Your task to perform on an android device: toggle airplane mode Image 0: 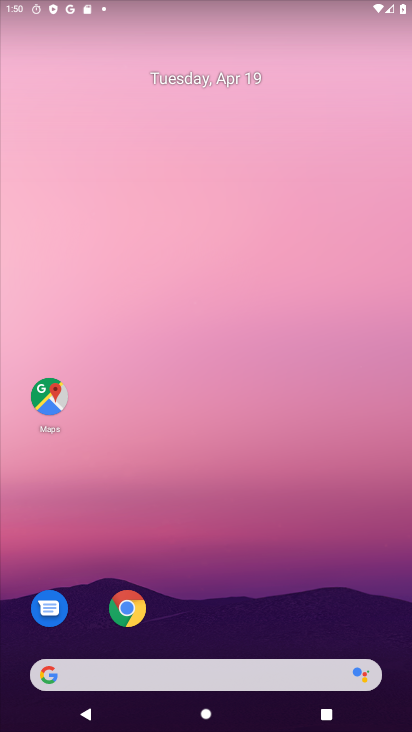
Step 0: drag from (233, 28) to (408, 227)
Your task to perform on an android device: toggle airplane mode Image 1: 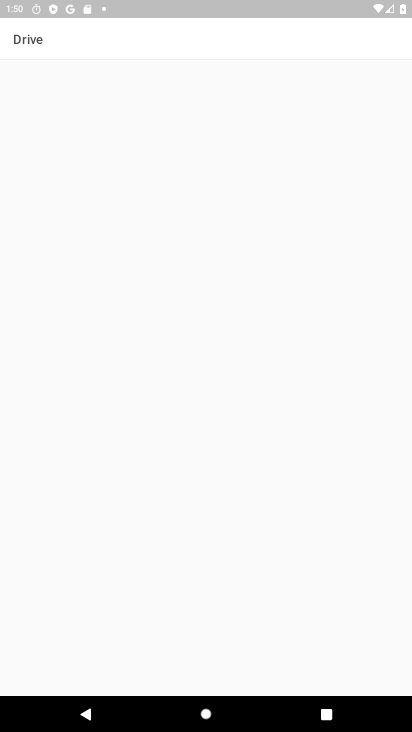
Step 1: press home button
Your task to perform on an android device: toggle airplane mode Image 2: 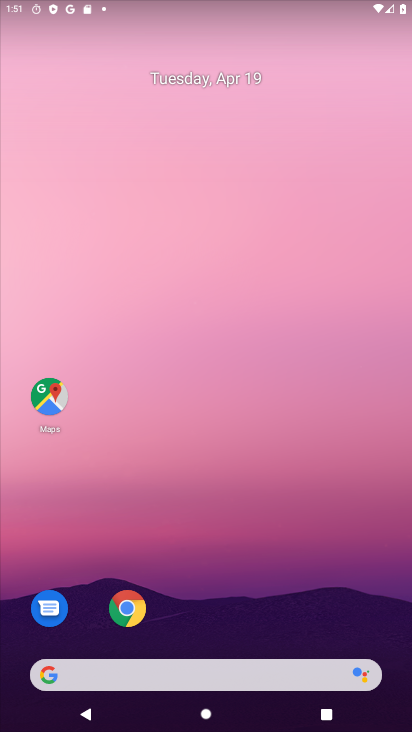
Step 2: drag from (191, 2) to (215, 697)
Your task to perform on an android device: toggle airplane mode Image 3: 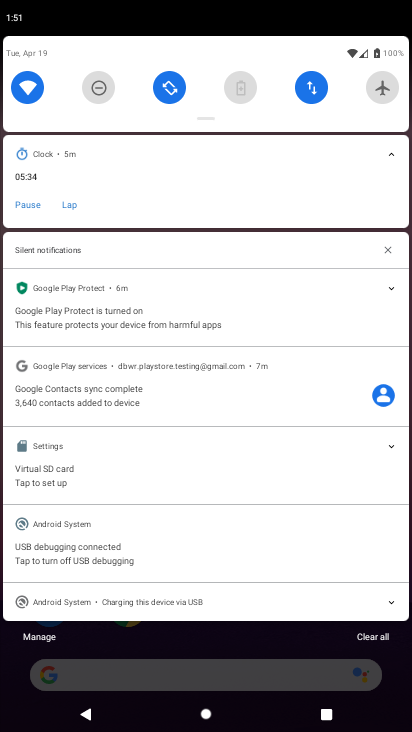
Step 3: click (380, 90)
Your task to perform on an android device: toggle airplane mode Image 4: 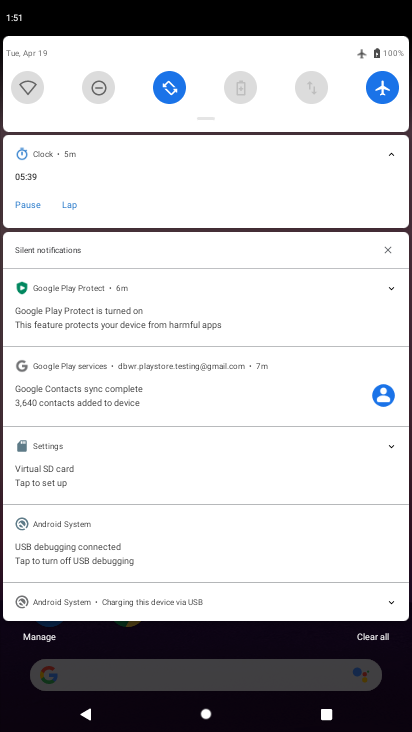
Step 4: task complete